Your task to perform on an android device: turn on translation in the chrome app Image 0: 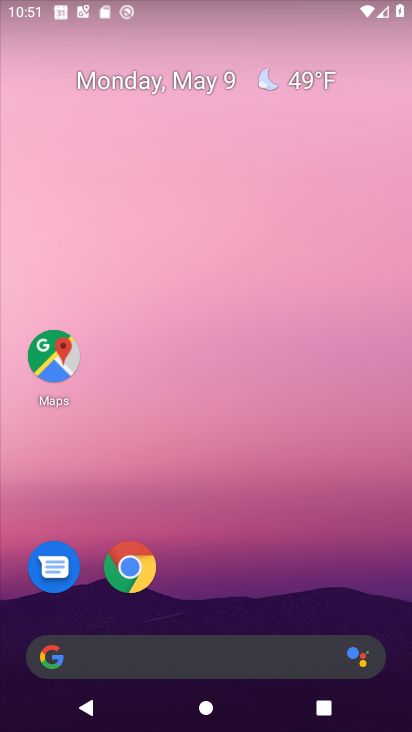
Step 0: click (128, 570)
Your task to perform on an android device: turn on translation in the chrome app Image 1: 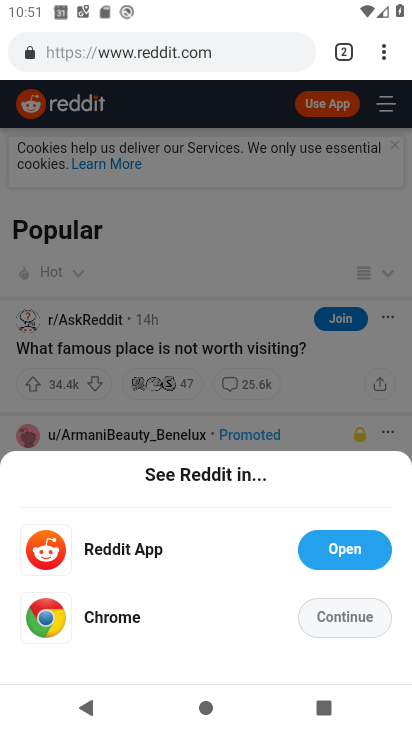
Step 1: click (386, 52)
Your task to perform on an android device: turn on translation in the chrome app Image 2: 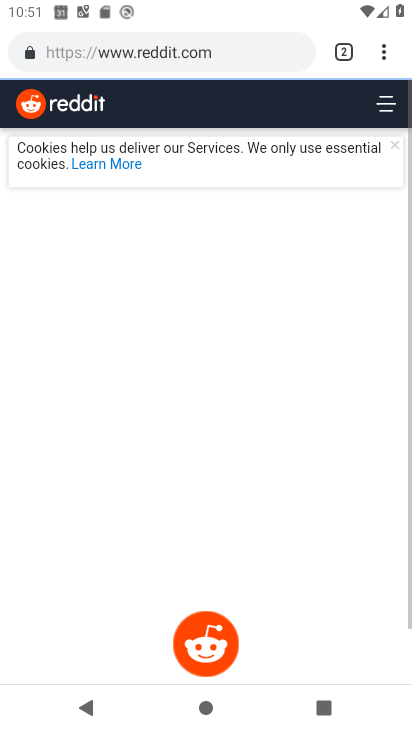
Step 2: click (384, 54)
Your task to perform on an android device: turn on translation in the chrome app Image 3: 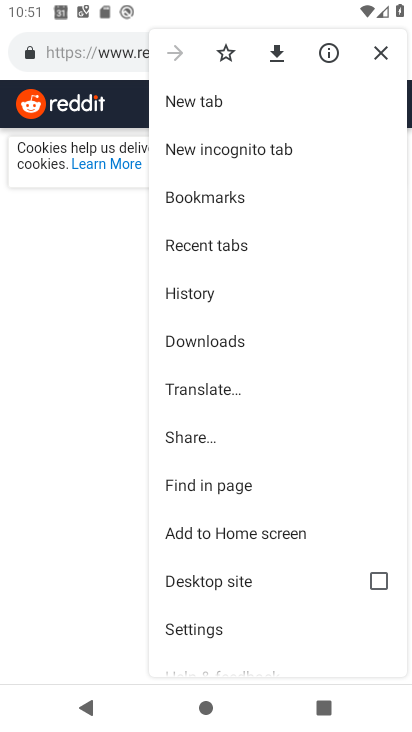
Step 3: click (209, 632)
Your task to perform on an android device: turn on translation in the chrome app Image 4: 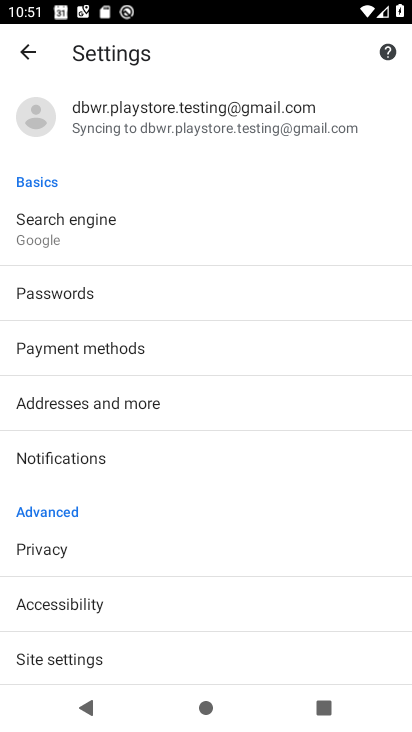
Step 4: drag from (126, 647) to (150, 270)
Your task to perform on an android device: turn on translation in the chrome app Image 5: 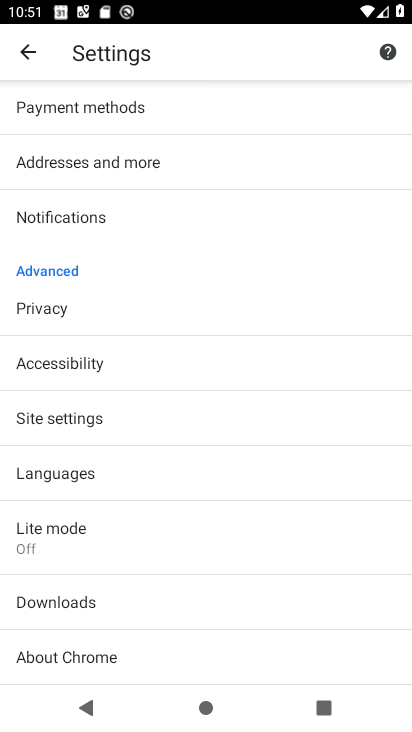
Step 5: click (59, 475)
Your task to perform on an android device: turn on translation in the chrome app Image 6: 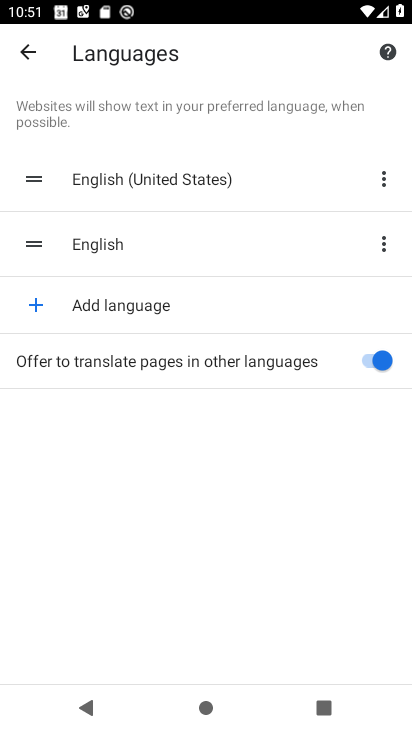
Step 6: task complete